Your task to perform on an android device: Go to ESPN.com Image 0: 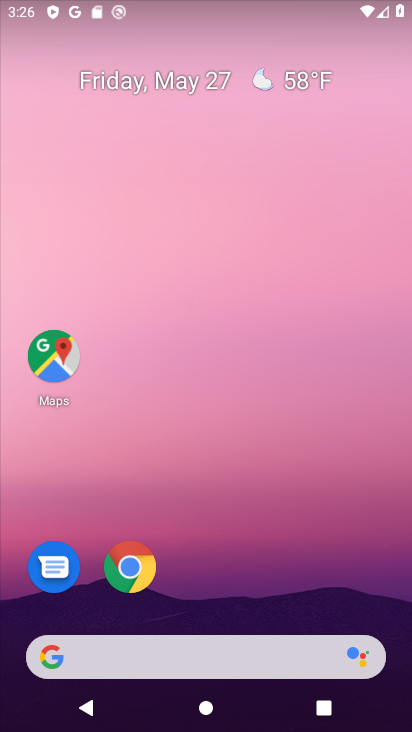
Step 0: click (240, 53)
Your task to perform on an android device: Go to ESPN.com Image 1: 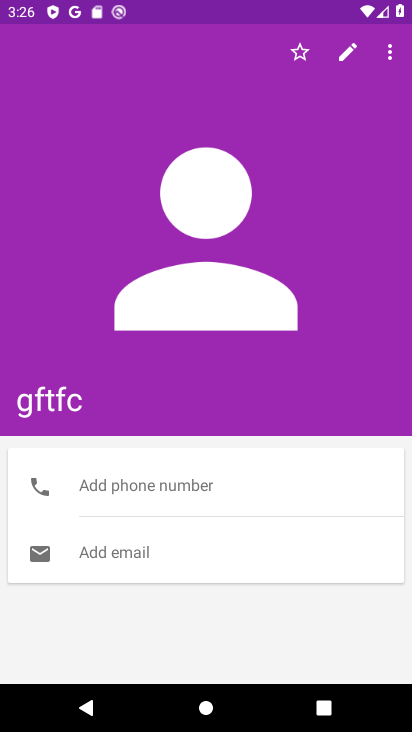
Step 1: press home button
Your task to perform on an android device: Go to ESPN.com Image 2: 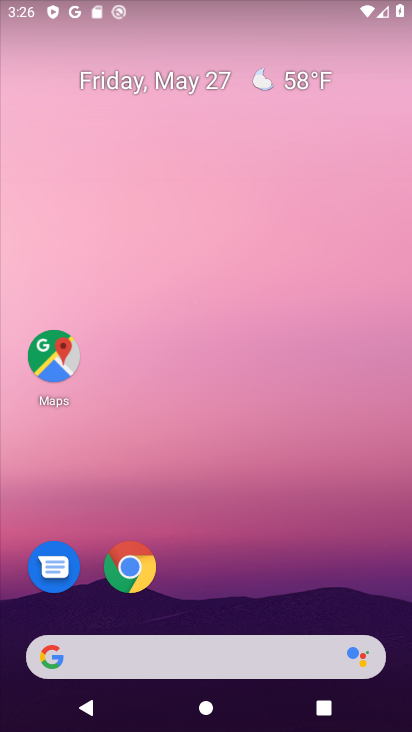
Step 2: drag from (211, 614) to (235, 50)
Your task to perform on an android device: Go to ESPN.com Image 3: 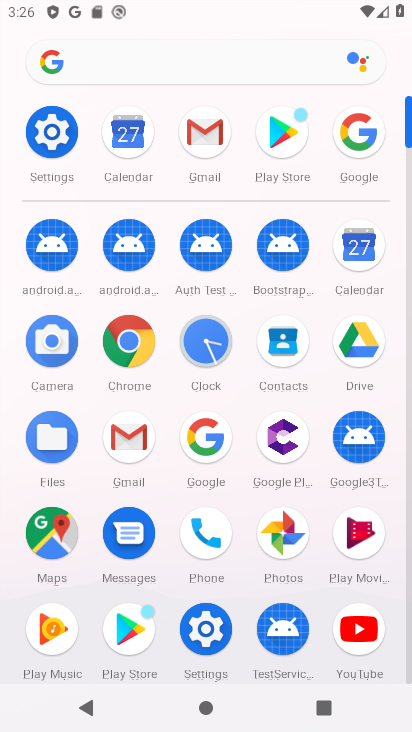
Step 3: click (127, 337)
Your task to perform on an android device: Go to ESPN.com Image 4: 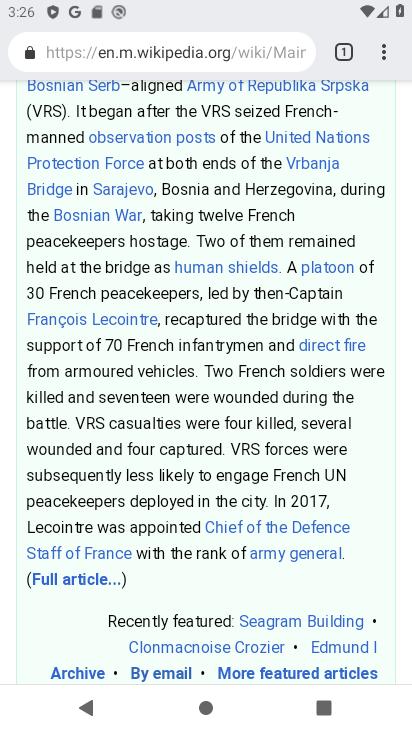
Step 4: click (339, 55)
Your task to perform on an android device: Go to ESPN.com Image 5: 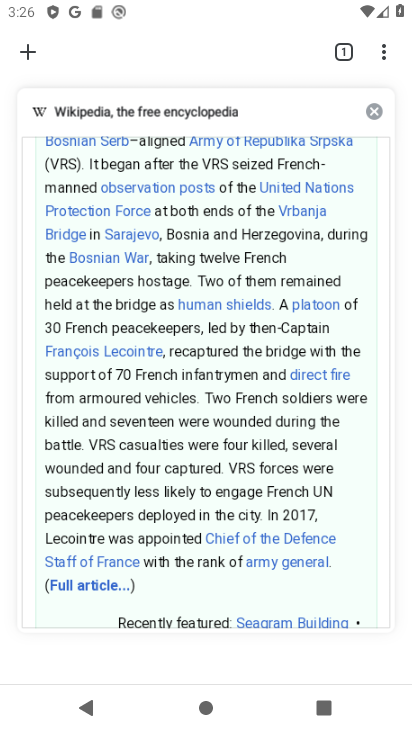
Step 5: click (373, 102)
Your task to perform on an android device: Go to ESPN.com Image 6: 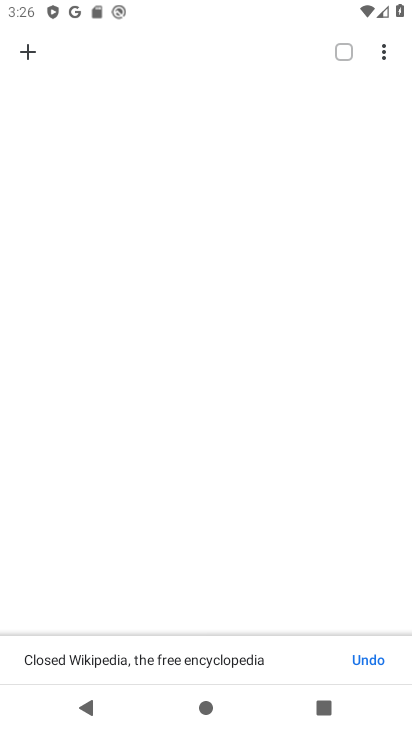
Step 6: click (28, 44)
Your task to perform on an android device: Go to ESPN.com Image 7: 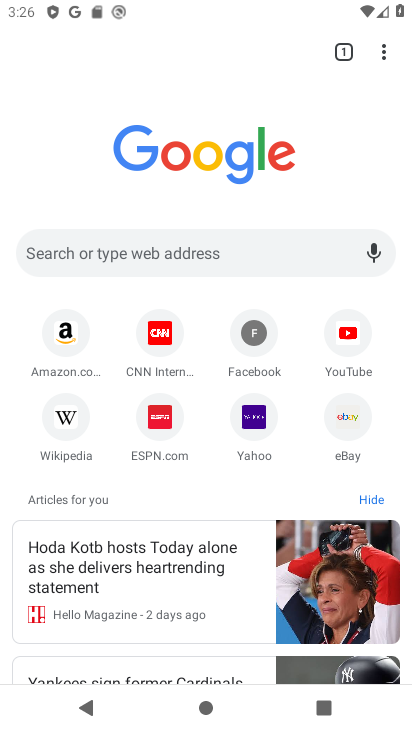
Step 7: click (161, 411)
Your task to perform on an android device: Go to ESPN.com Image 8: 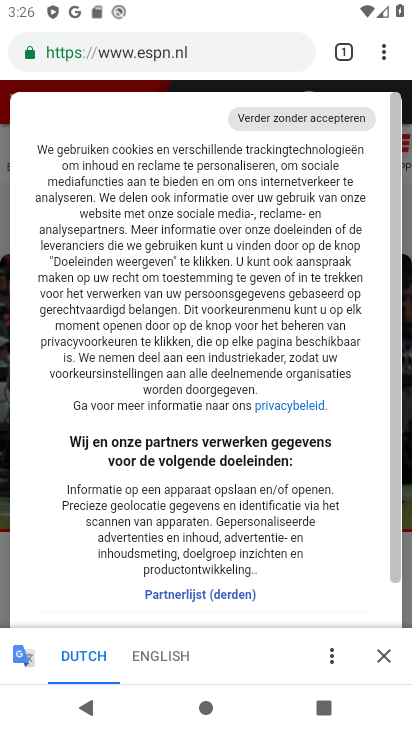
Step 8: drag from (229, 559) to (224, 156)
Your task to perform on an android device: Go to ESPN.com Image 9: 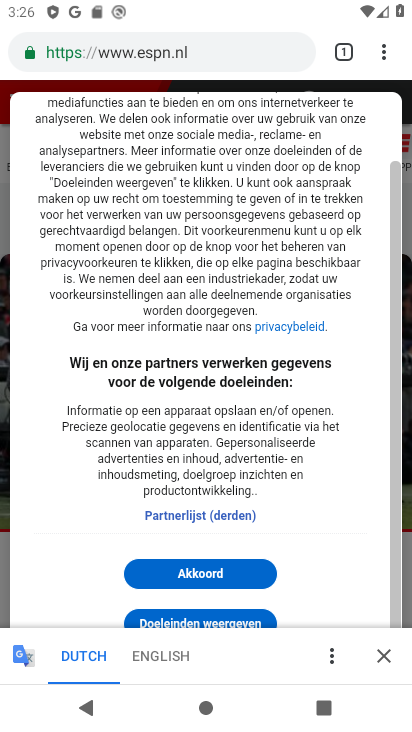
Step 9: click (195, 571)
Your task to perform on an android device: Go to ESPN.com Image 10: 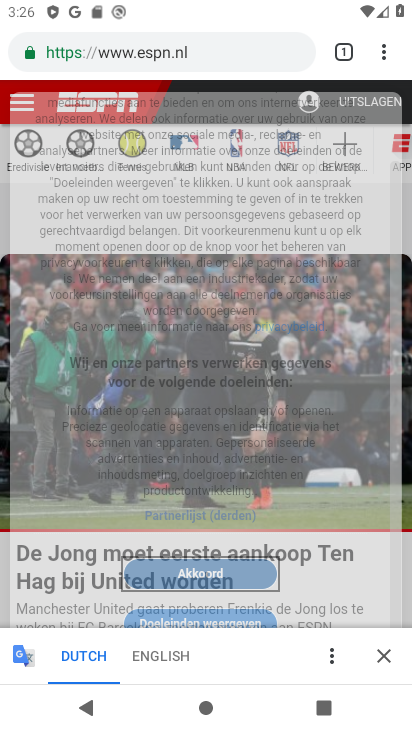
Step 10: click (383, 653)
Your task to perform on an android device: Go to ESPN.com Image 11: 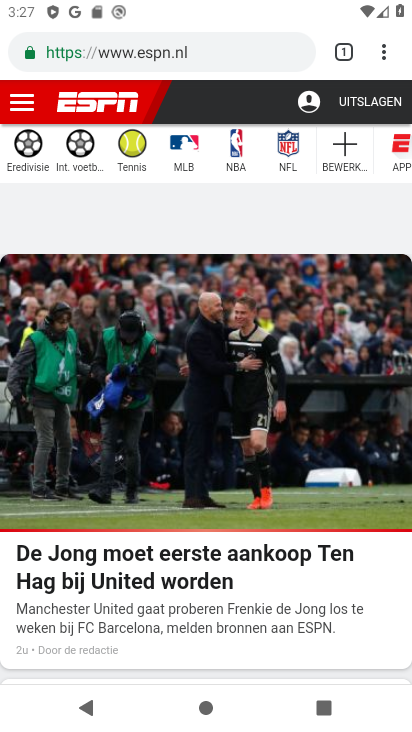
Step 11: task complete